Your task to perform on an android device: toggle wifi Image 0: 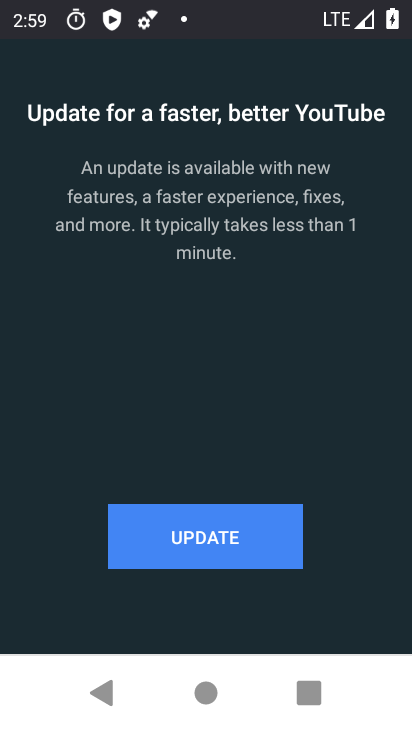
Step 0: drag from (228, 625) to (228, 92)
Your task to perform on an android device: toggle wifi Image 1: 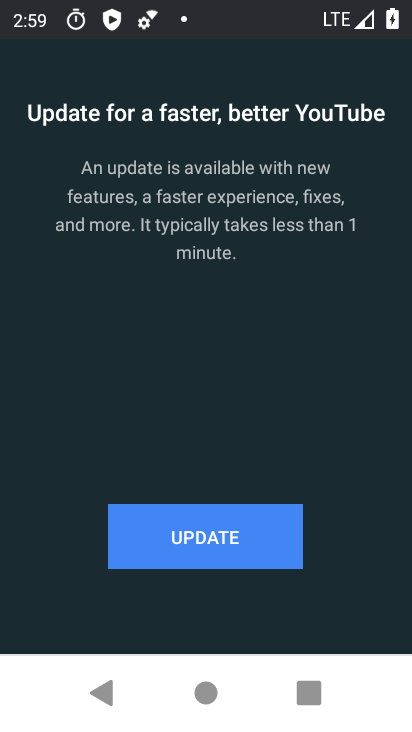
Step 1: press home button
Your task to perform on an android device: toggle wifi Image 2: 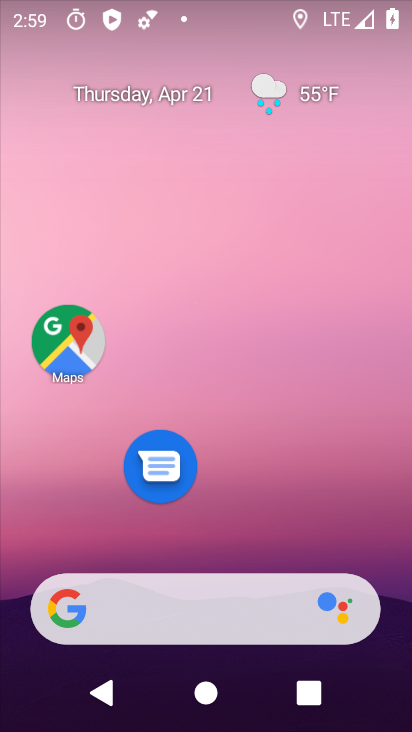
Step 2: drag from (245, 556) to (224, 42)
Your task to perform on an android device: toggle wifi Image 3: 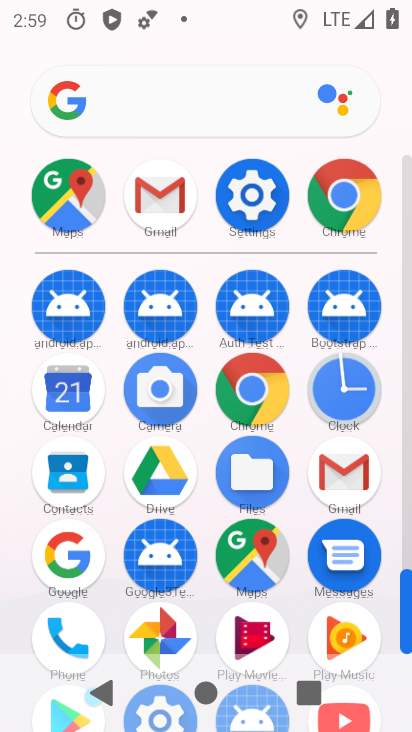
Step 3: click (266, 182)
Your task to perform on an android device: toggle wifi Image 4: 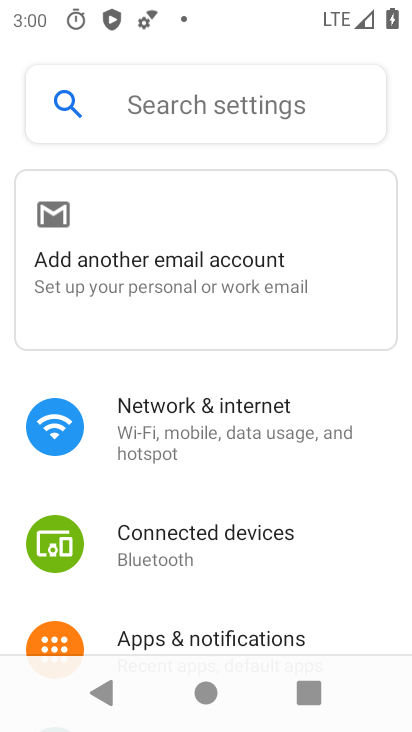
Step 4: click (301, 449)
Your task to perform on an android device: toggle wifi Image 5: 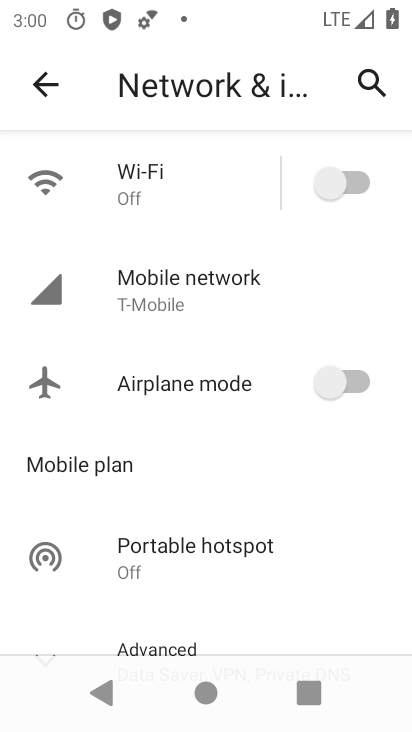
Step 5: click (351, 188)
Your task to perform on an android device: toggle wifi Image 6: 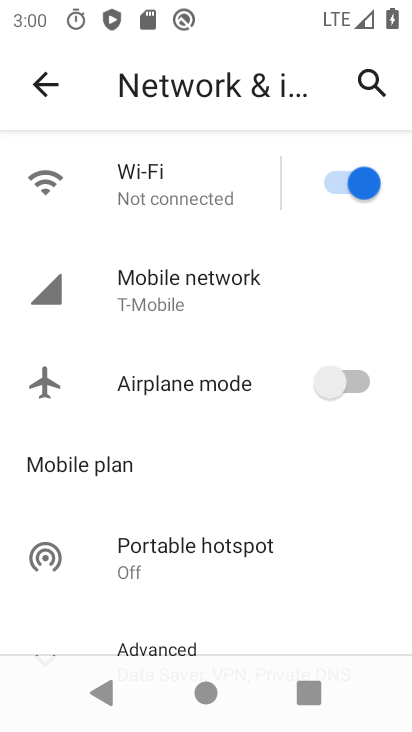
Step 6: task complete